Your task to perform on an android device: delete browsing data in the chrome app Image 0: 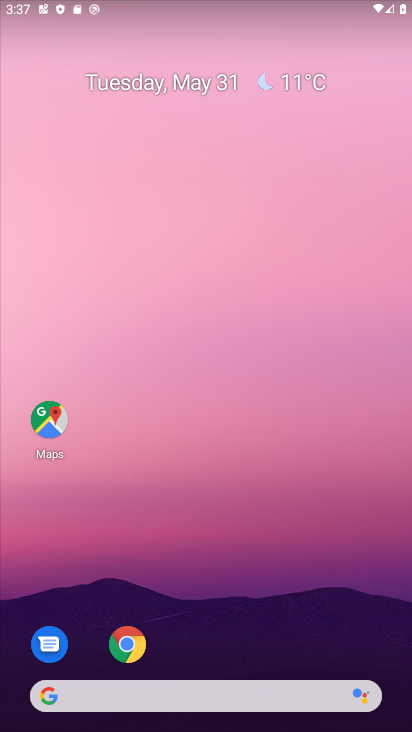
Step 0: click (133, 640)
Your task to perform on an android device: delete browsing data in the chrome app Image 1: 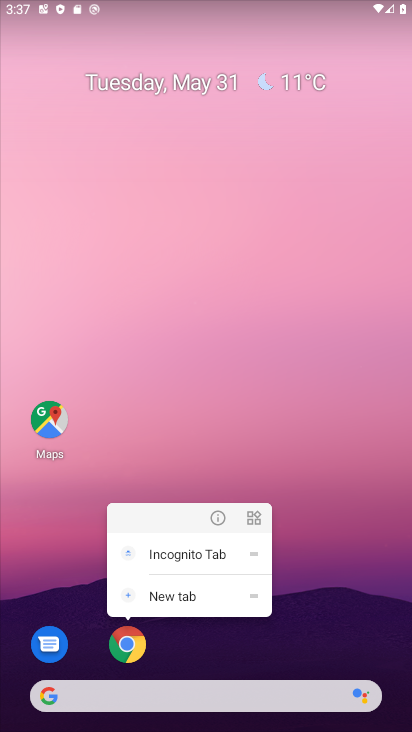
Step 1: click (109, 647)
Your task to perform on an android device: delete browsing data in the chrome app Image 2: 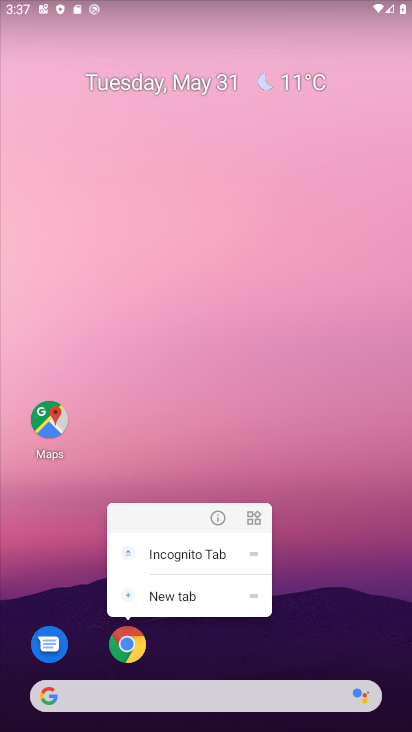
Step 2: click (129, 637)
Your task to perform on an android device: delete browsing data in the chrome app Image 3: 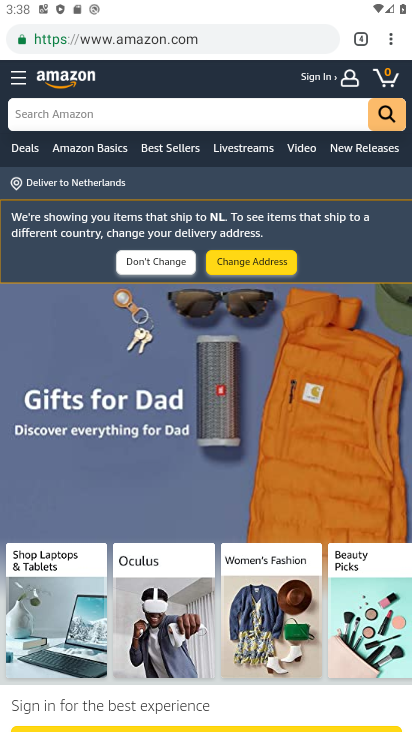
Step 3: click (399, 29)
Your task to perform on an android device: delete browsing data in the chrome app Image 4: 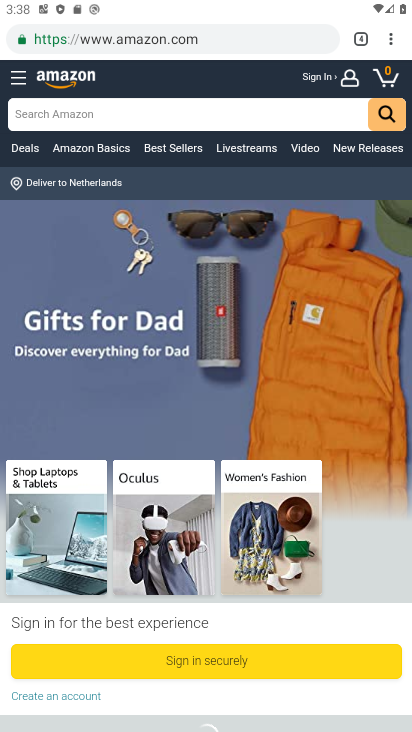
Step 4: click (394, 40)
Your task to perform on an android device: delete browsing data in the chrome app Image 5: 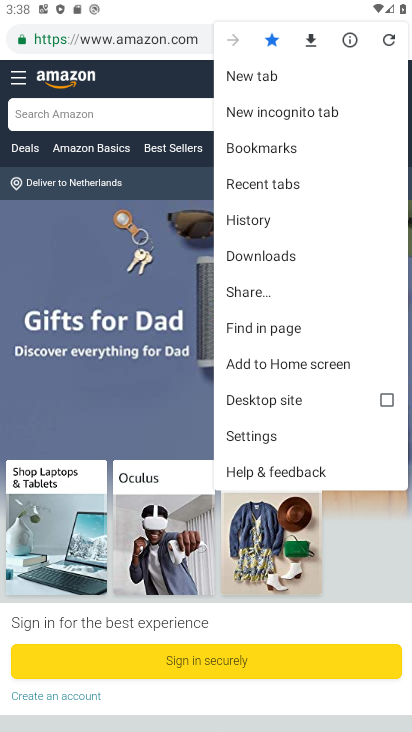
Step 5: click (248, 432)
Your task to perform on an android device: delete browsing data in the chrome app Image 6: 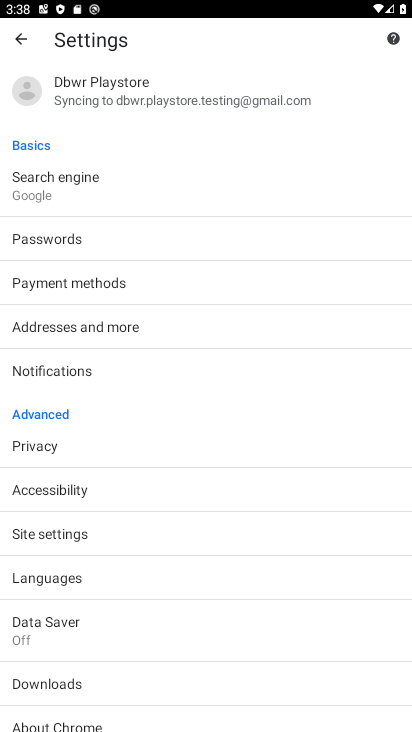
Step 6: drag from (123, 663) to (185, 218)
Your task to perform on an android device: delete browsing data in the chrome app Image 7: 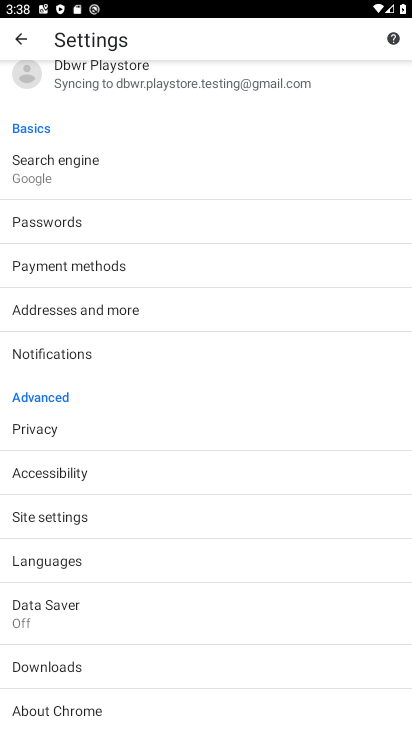
Step 7: click (227, 428)
Your task to perform on an android device: delete browsing data in the chrome app Image 8: 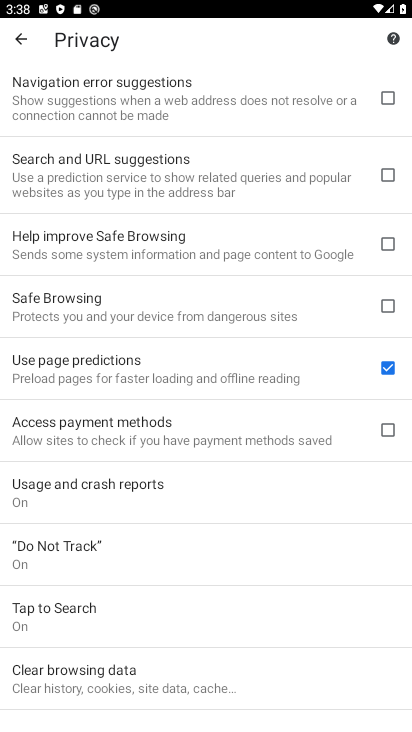
Step 8: click (138, 653)
Your task to perform on an android device: delete browsing data in the chrome app Image 9: 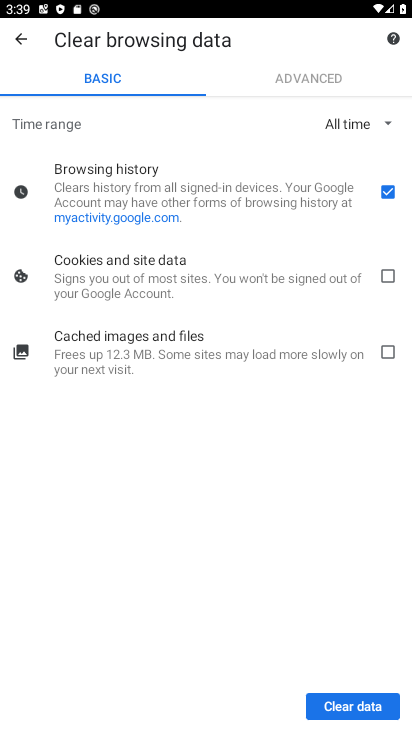
Step 9: click (390, 272)
Your task to perform on an android device: delete browsing data in the chrome app Image 10: 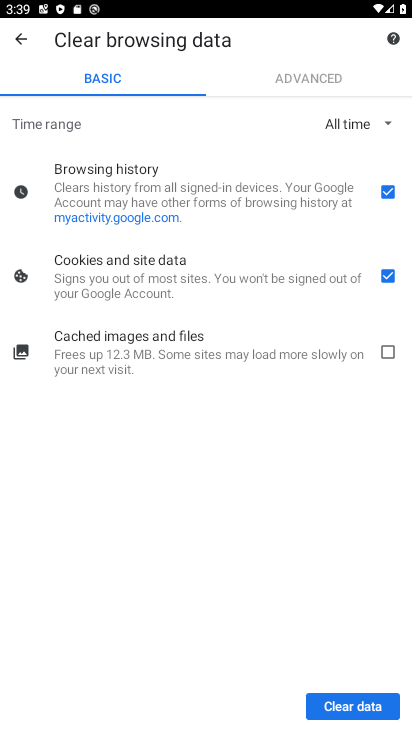
Step 10: click (343, 701)
Your task to perform on an android device: delete browsing data in the chrome app Image 11: 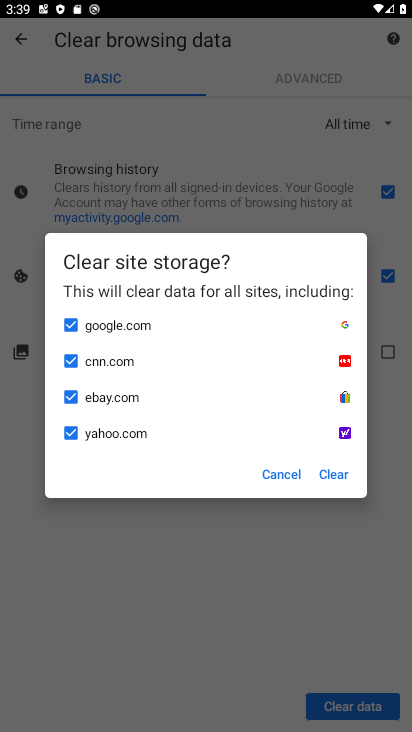
Step 11: click (343, 701)
Your task to perform on an android device: delete browsing data in the chrome app Image 12: 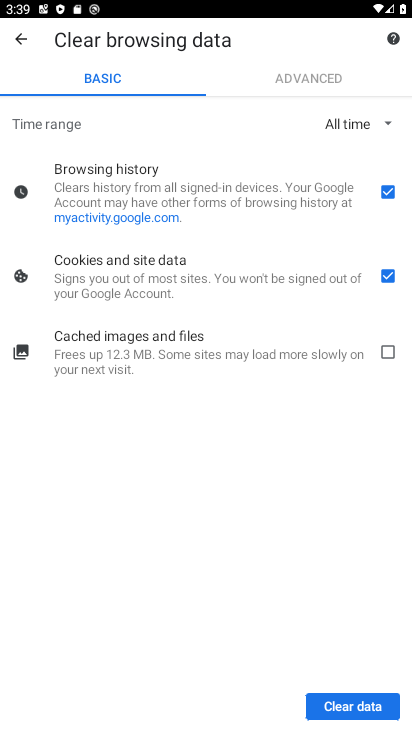
Step 12: click (356, 678)
Your task to perform on an android device: delete browsing data in the chrome app Image 13: 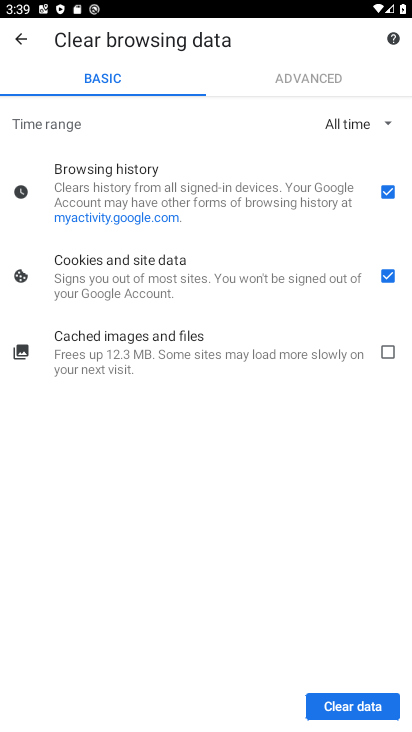
Step 13: click (356, 707)
Your task to perform on an android device: delete browsing data in the chrome app Image 14: 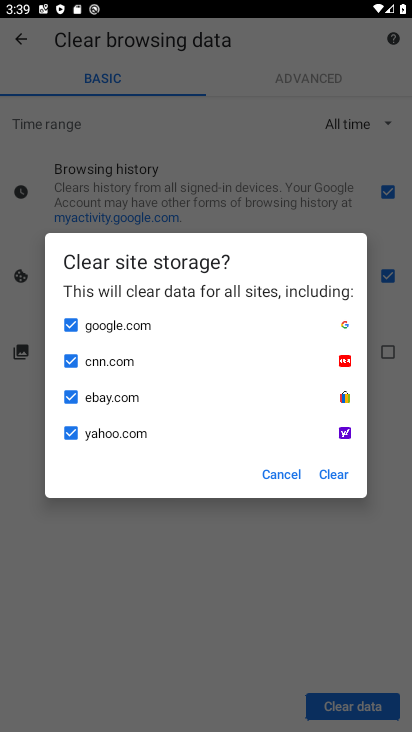
Step 14: click (340, 470)
Your task to perform on an android device: delete browsing data in the chrome app Image 15: 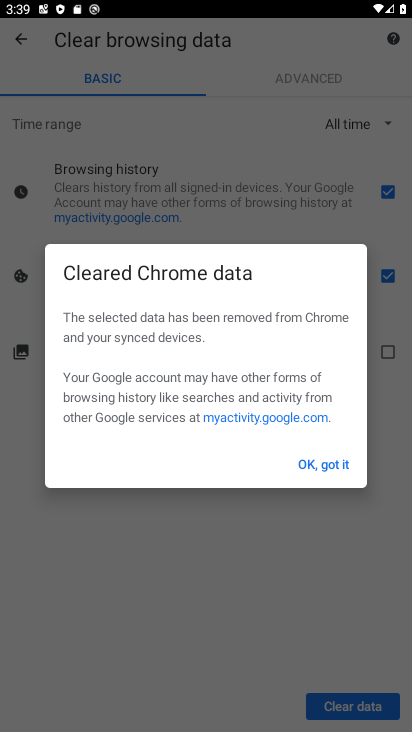
Step 15: click (330, 462)
Your task to perform on an android device: delete browsing data in the chrome app Image 16: 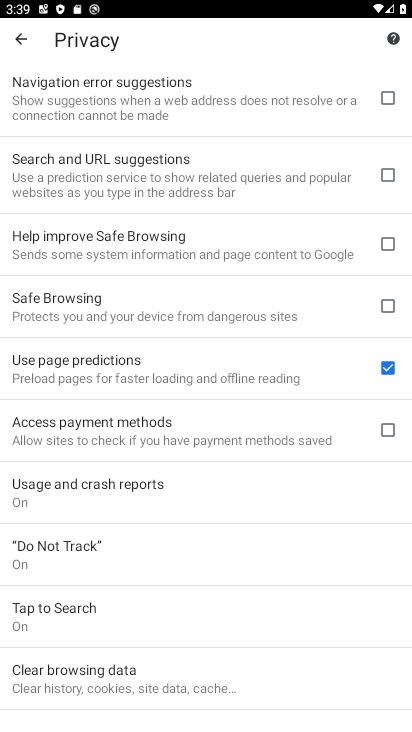
Step 16: task complete